Your task to perform on an android device: Show me popular videos on Youtube Image 0: 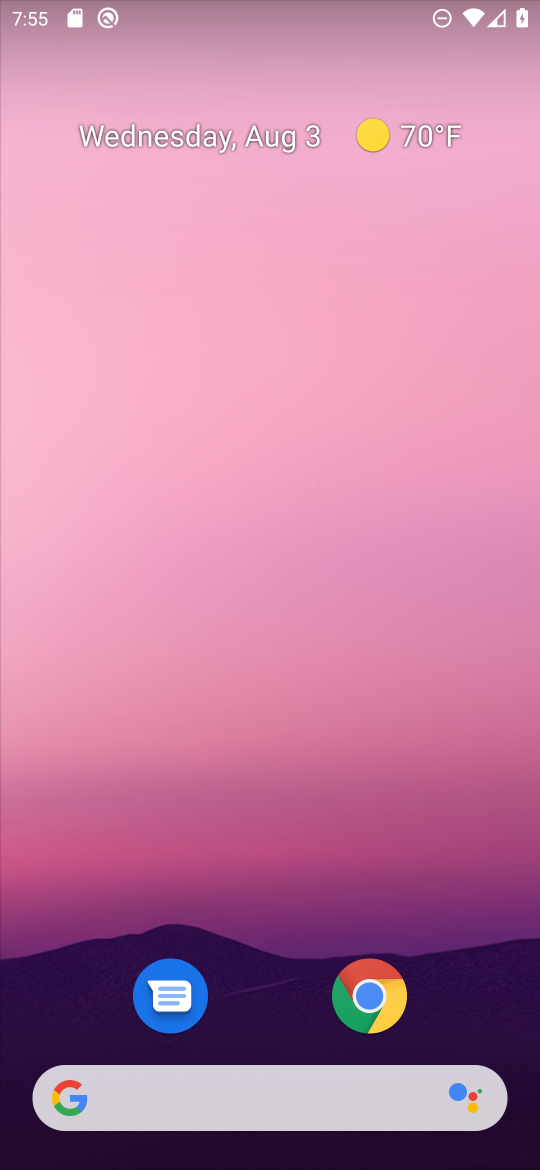
Step 0: drag from (261, 928) to (285, 1)
Your task to perform on an android device: Show me popular videos on Youtube Image 1: 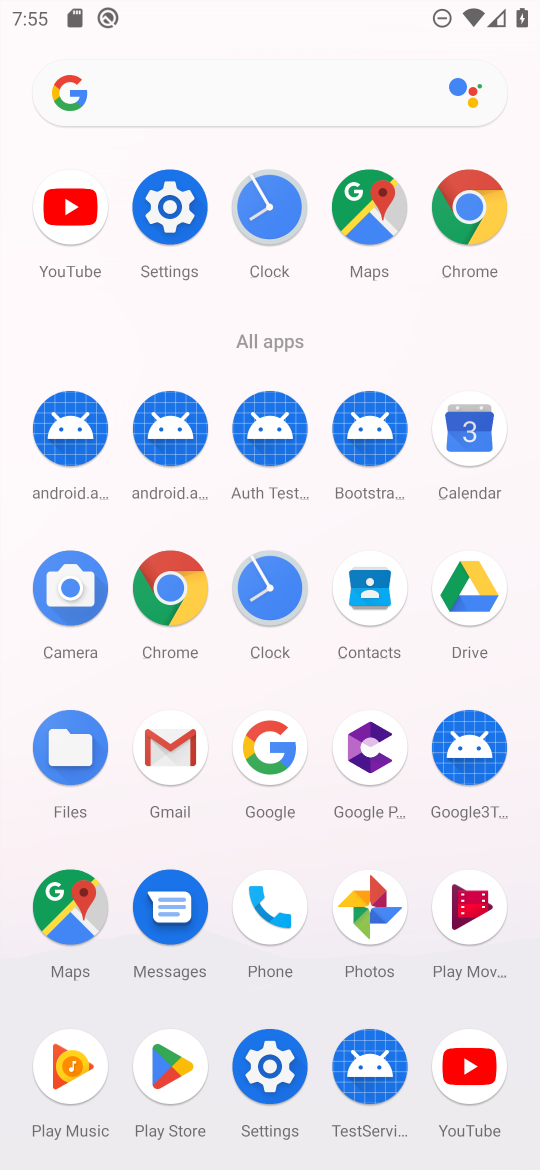
Step 1: click (82, 211)
Your task to perform on an android device: Show me popular videos on Youtube Image 2: 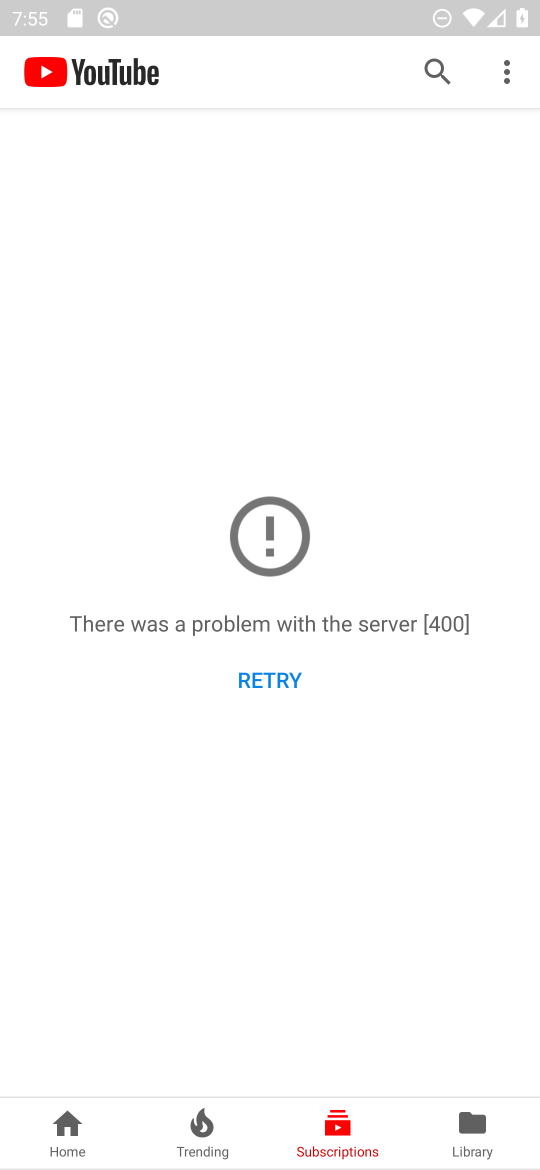
Step 2: click (435, 64)
Your task to perform on an android device: Show me popular videos on Youtube Image 3: 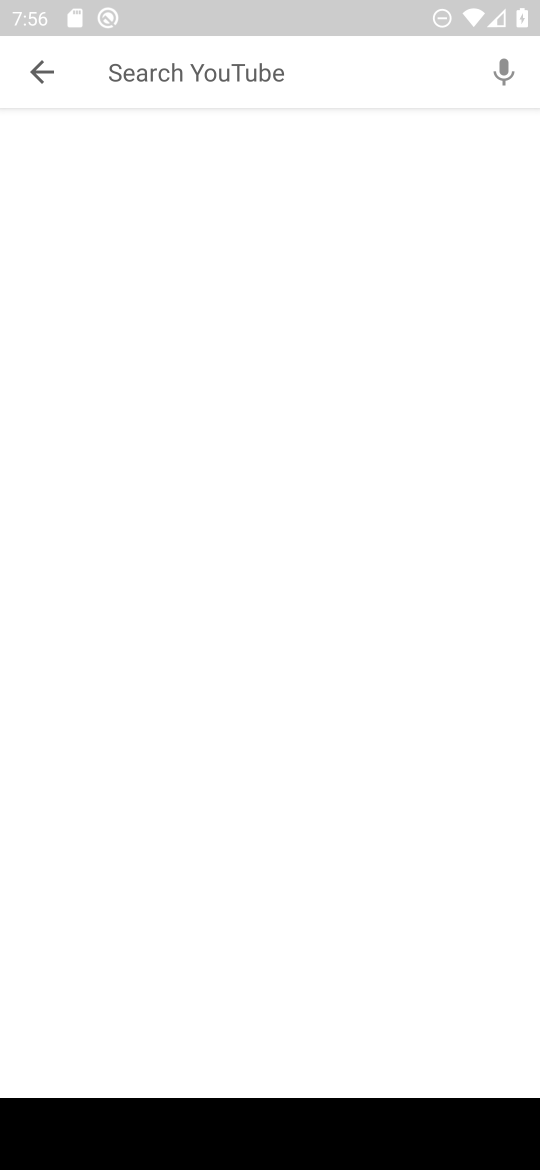
Step 3: type "popular videos"
Your task to perform on an android device: Show me popular videos on Youtube Image 4: 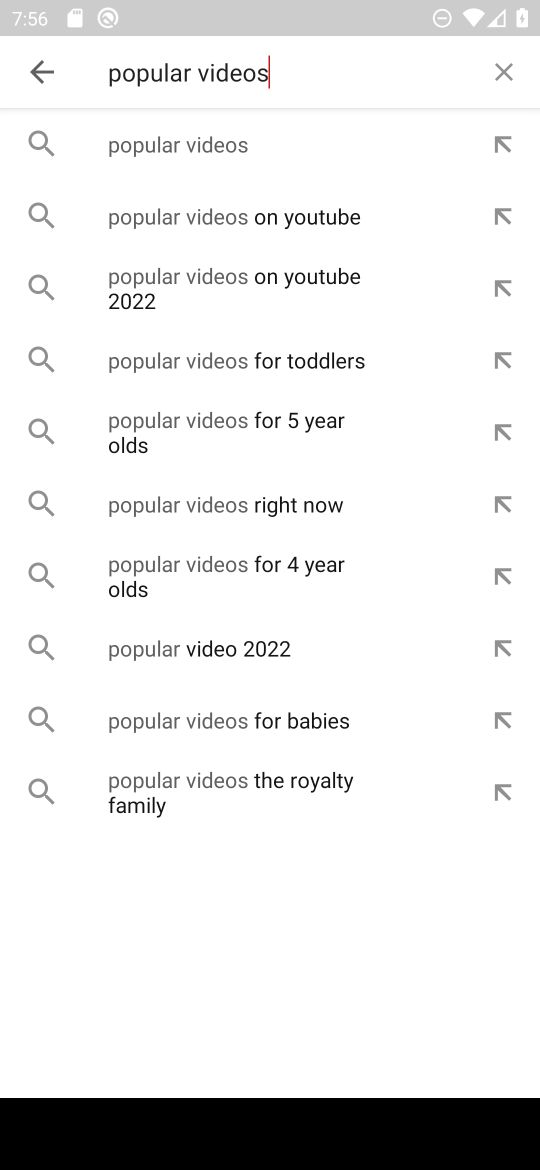
Step 4: click (276, 220)
Your task to perform on an android device: Show me popular videos on Youtube Image 5: 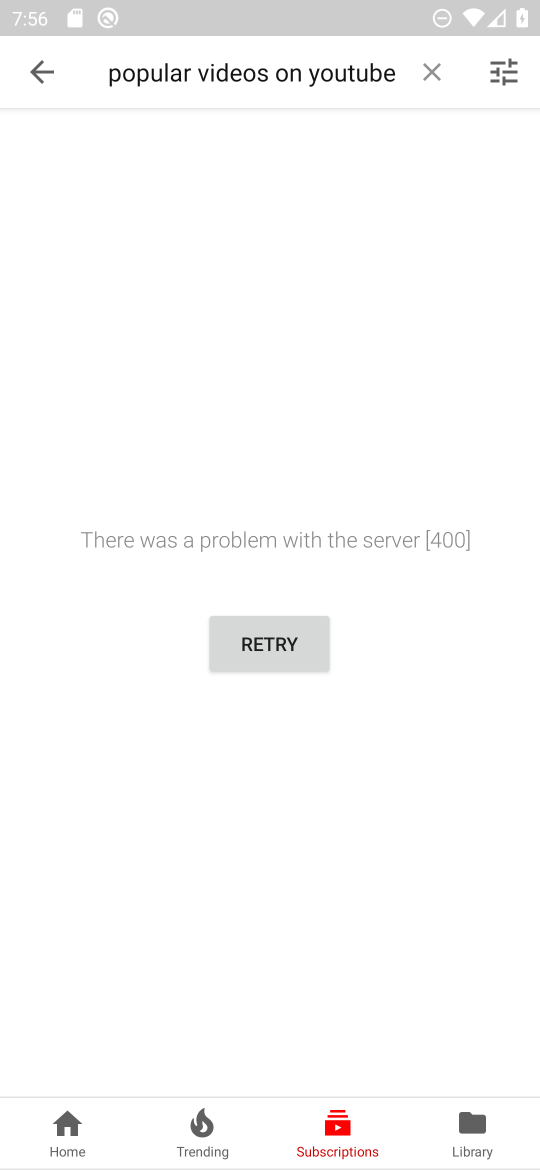
Step 5: task complete